Your task to perform on an android device: What's a good restaurant in Seattle? Image 0: 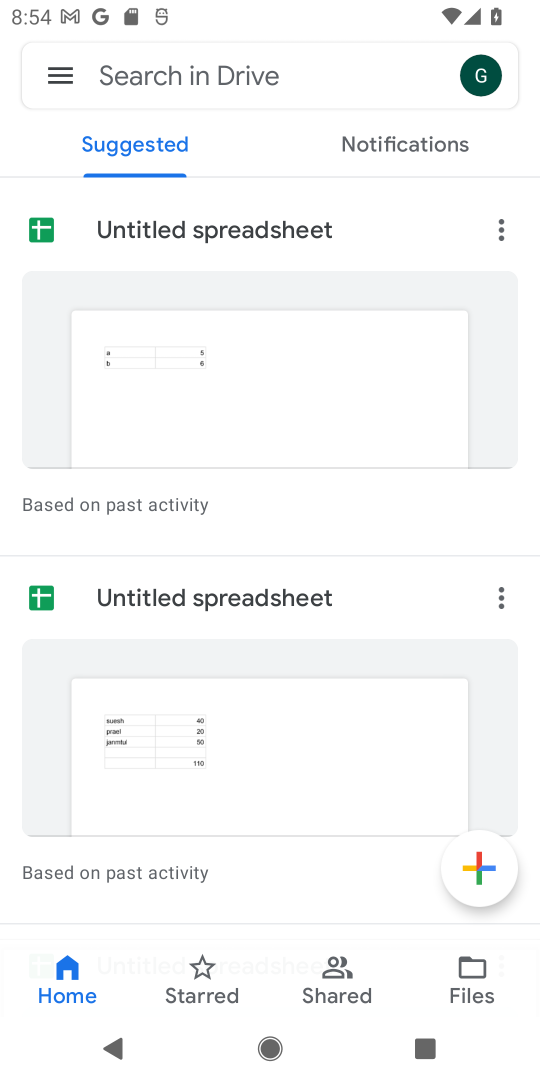
Step 0: press home button
Your task to perform on an android device: What's a good restaurant in Seattle? Image 1: 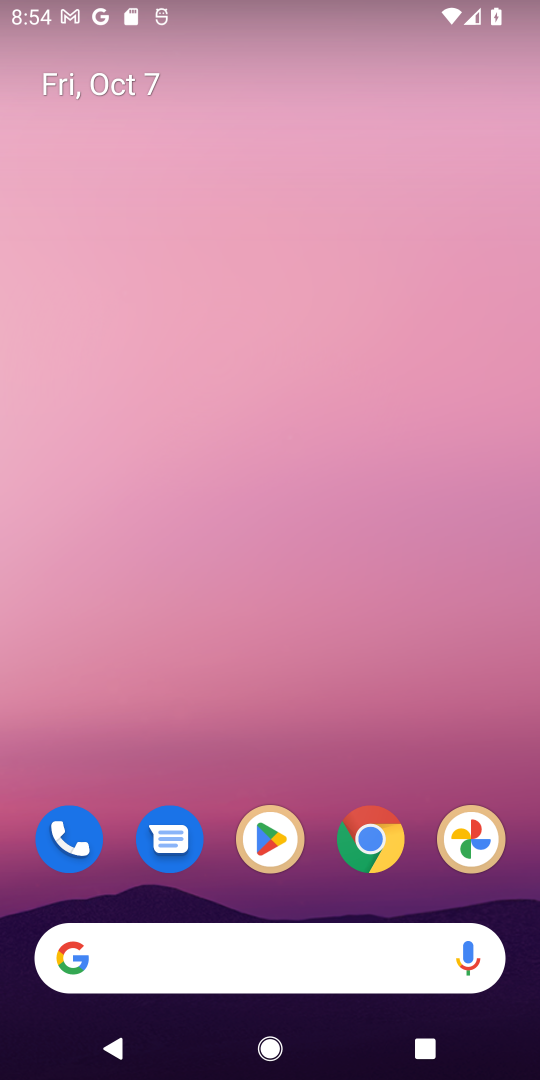
Step 1: click (357, 839)
Your task to perform on an android device: What's a good restaurant in Seattle? Image 2: 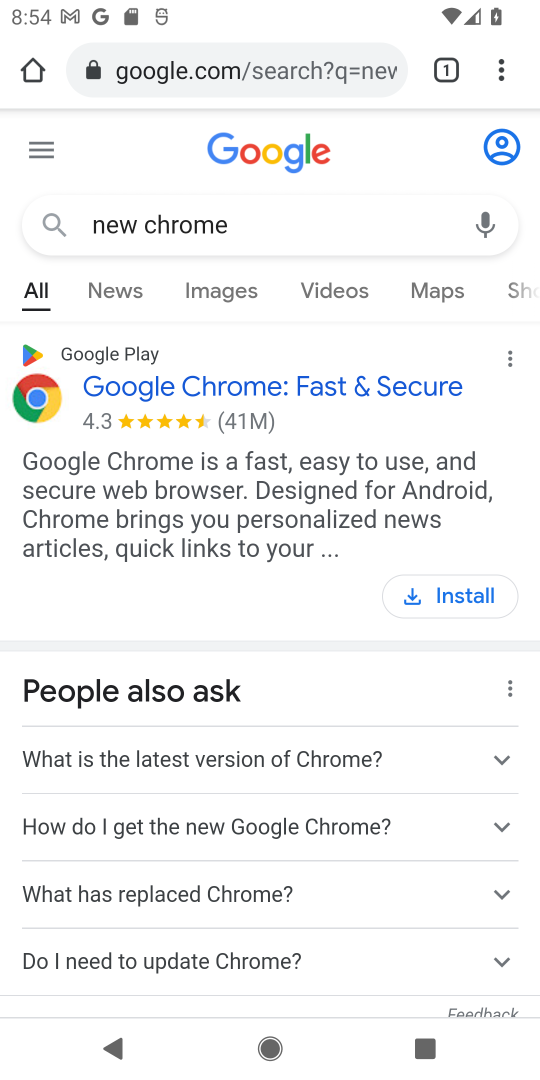
Step 2: click (311, 60)
Your task to perform on an android device: What's a good restaurant in Seattle? Image 3: 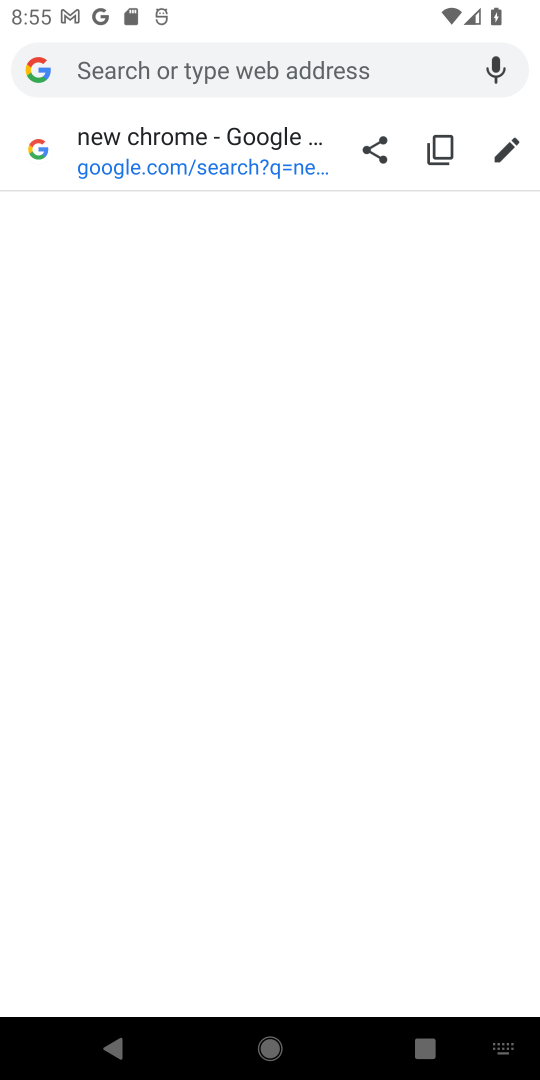
Step 3: type "good resturant in seattle"
Your task to perform on an android device: What's a good restaurant in Seattle? Image 4: 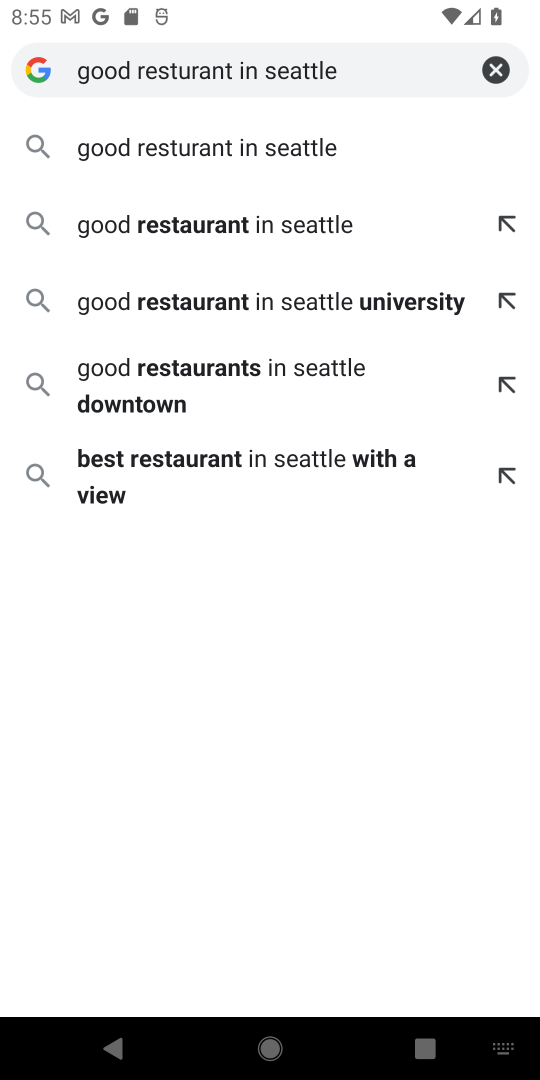
Step 4: click (232, 225)
Your task to perform on an android device: What's a good restaurant in Seattle? Image 5: 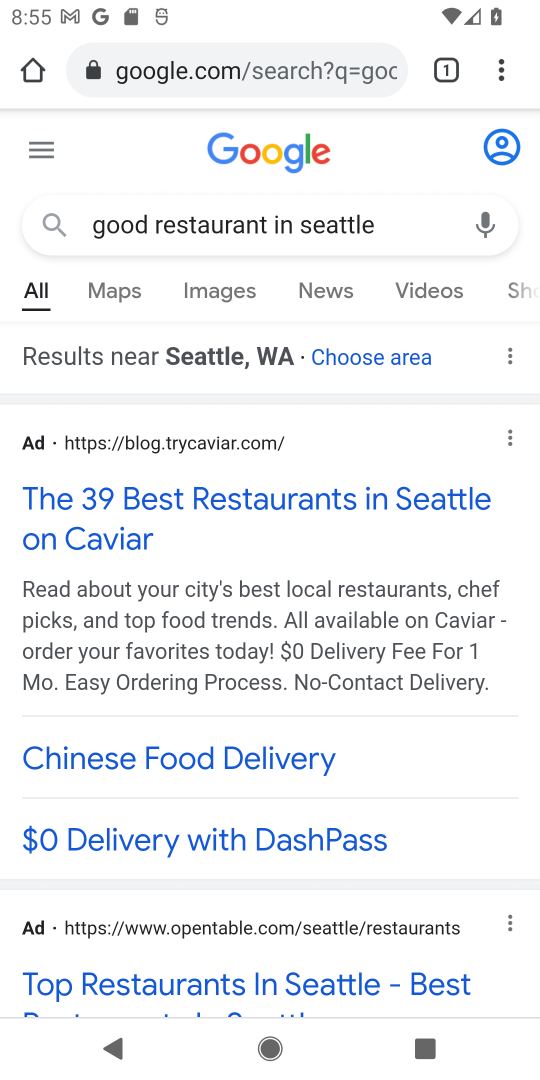
Step 5: click (283, 488)
Your task to perform on an android device: What's a good restaurant in Seattle? Image 6: 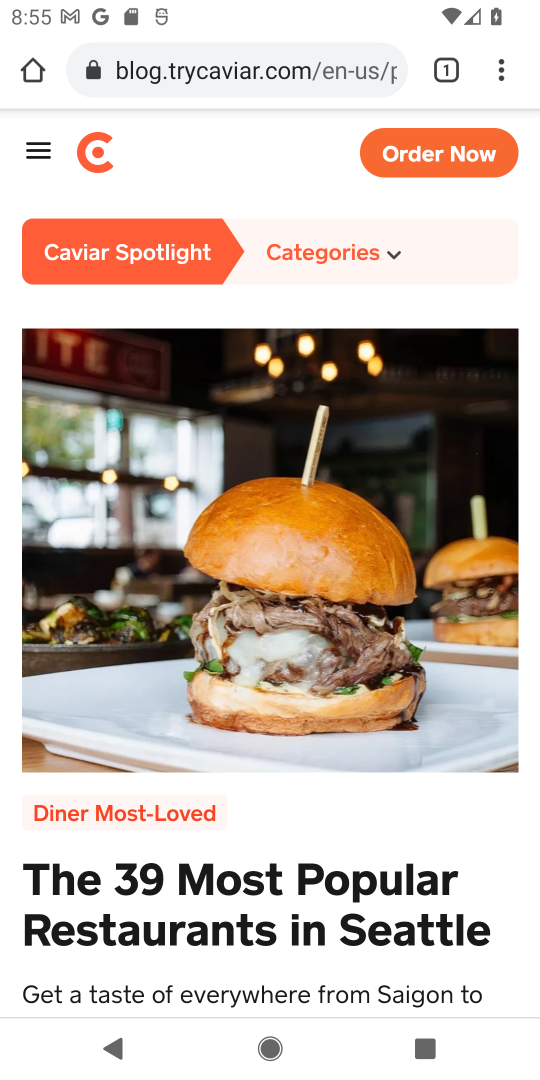
Step 6: task complete